Your task to perform on an android device: Set the phone to "Do not disturb". Image 0: 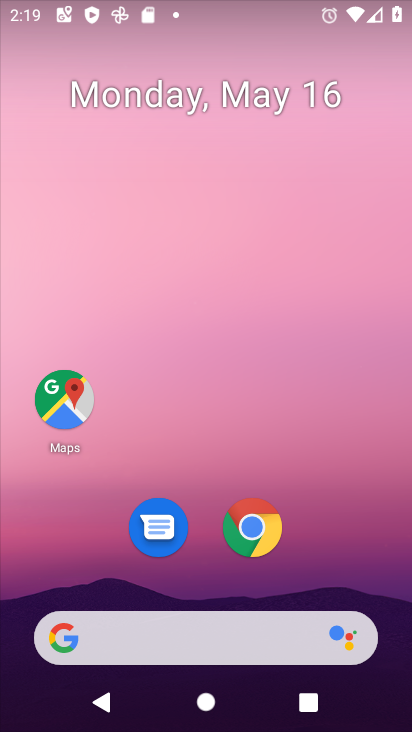
Step 0: drag from (346, 541) to (349, 186)
Your task to perform on an android device: Set the phone to "Do not disturb". Image 1: 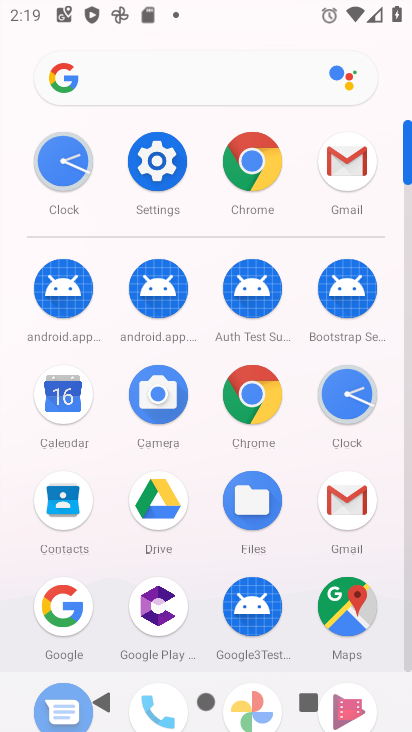
Step 1: click (153, 197)
Your task to perform on an android device: Set the phone to "Do not disturb". Image 2: 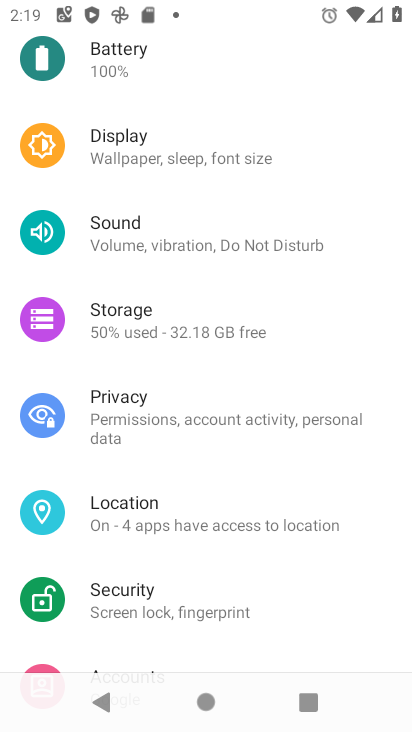
Step 2: click (183, 232)
Your task to perform on an android device: Set the phone to "Do not disturb". Image 3: 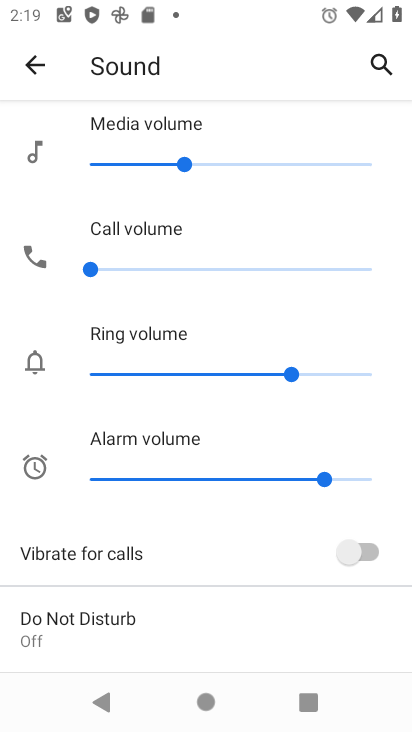
Step 3: click (166, 612)
Your task to perform on an android device: Set the phone to "Do not disturb". Image 4: 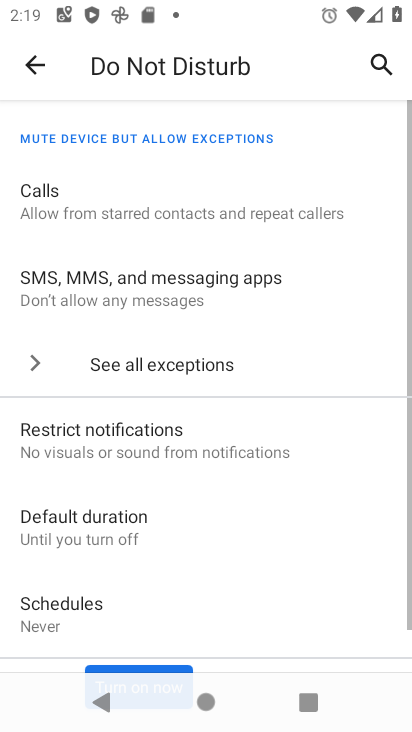
Step 4: drag from (196, 622) to (222, 342)
Your task to perform on an android device: Set the phone to "Do not disturb". Image 5: 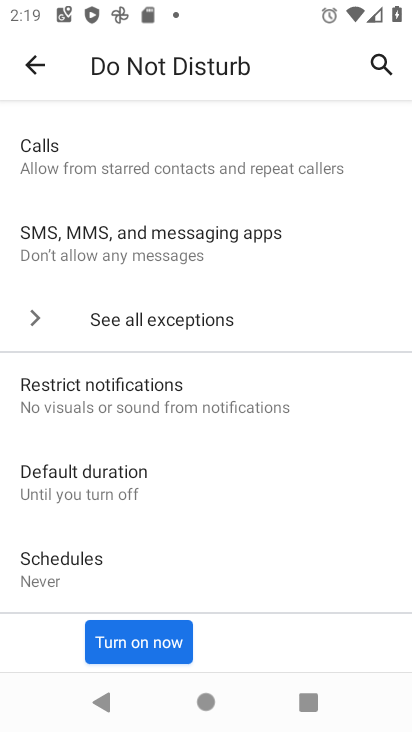
Step 5: click (142, 644)
Your task to perform on an android device: Set the phone to "Do not disturb". Image 6: 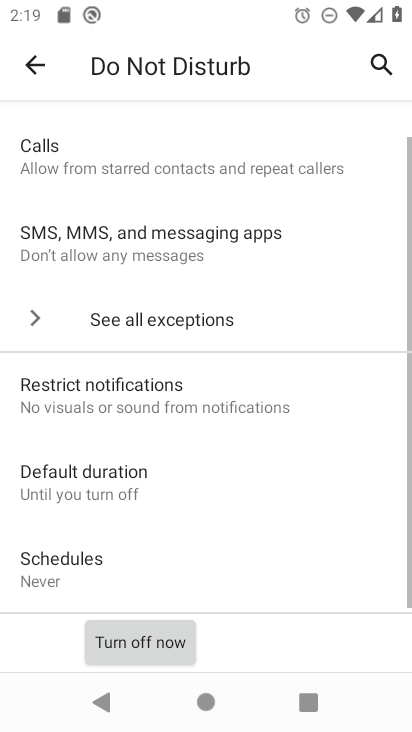
Step 6: task complete